Your task to perform on an android device: change timer sound Image 0: 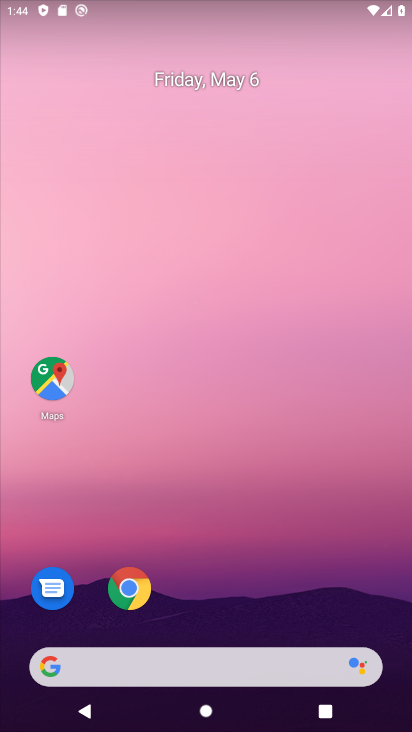
Step 0: drag from (201, 629) to (274, 23)
Your task to perform on an android device: change timer sound Image 1: 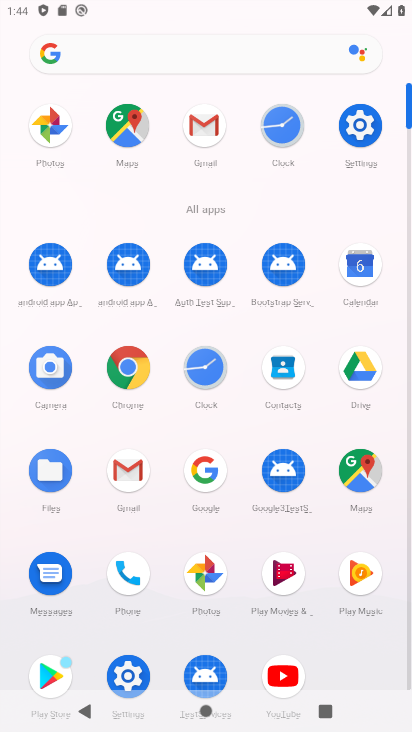
Step 1: click (292, 114)
Your task to perform on an android device: change timer sound Image 2: 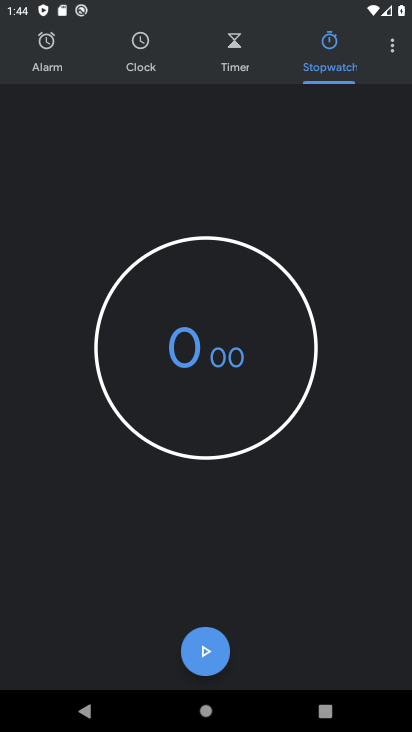
Step 2: click (388, 54)
Your task to perform on an android device: change timer sound Image 3: 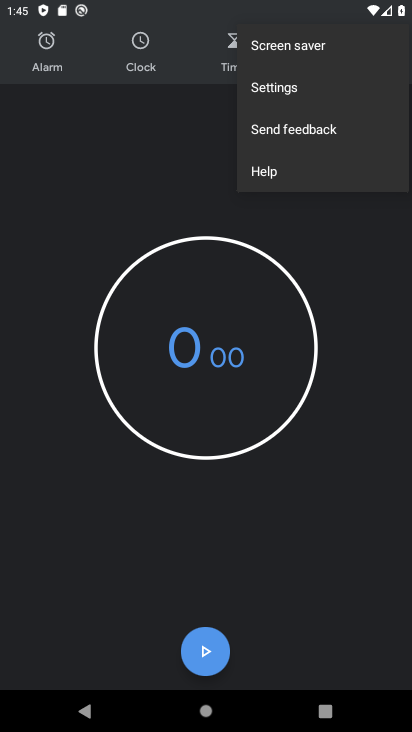
Step 3: click (269, 73)
Your task to perform on an android device: change timer sound Image 4: 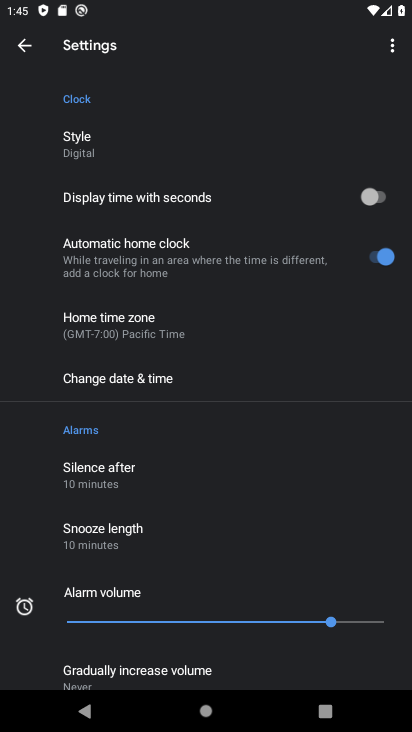
Step 4: drag from (182, 611) to (195, 131)
Your task to perform on an android device: change timer sound Image 5: 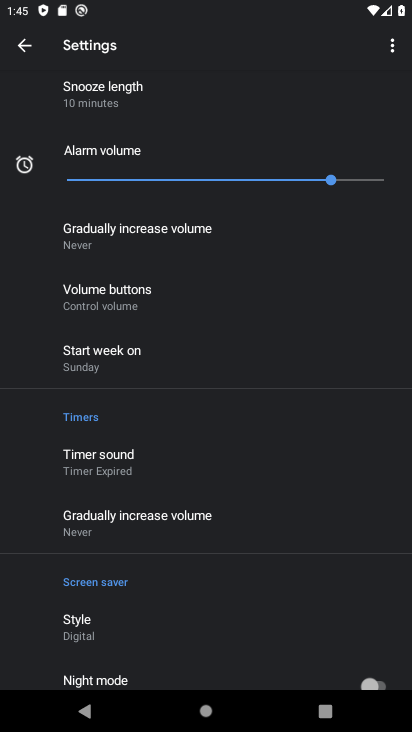
Step 5: click (129, 473)
Your task to perform on an android device: change timer sound Image 6: 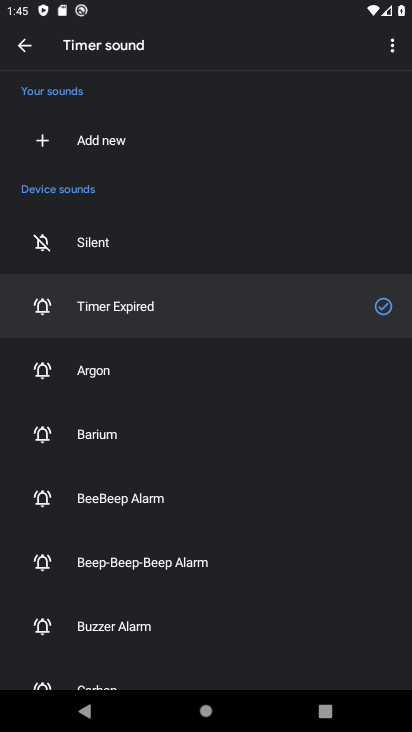
Step 6: click (99, 455)
Your task to perform on an android device: change timer sound Image 7: 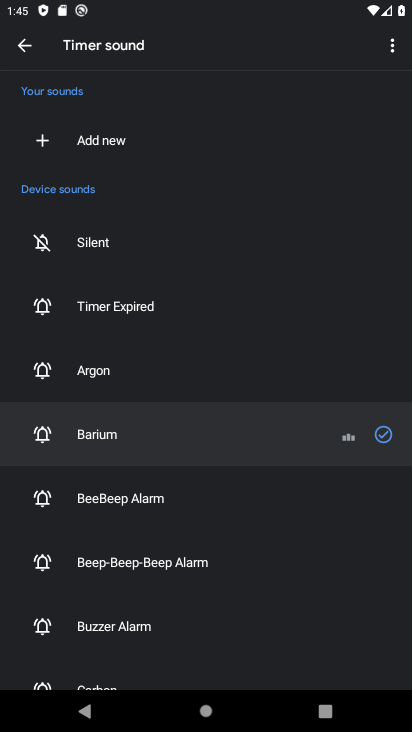
Step 7: type ""
Your task to perform on an android device: change timer sound Image 8: 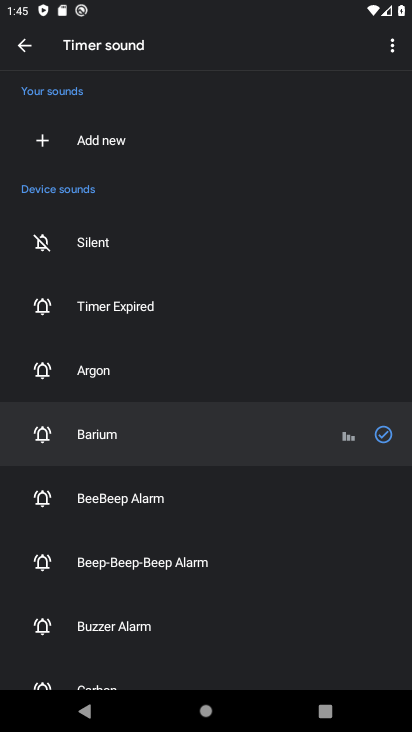
Step 8: task complete